Your task to perform on an android device: Do I have any events tomorrow? Image 0: 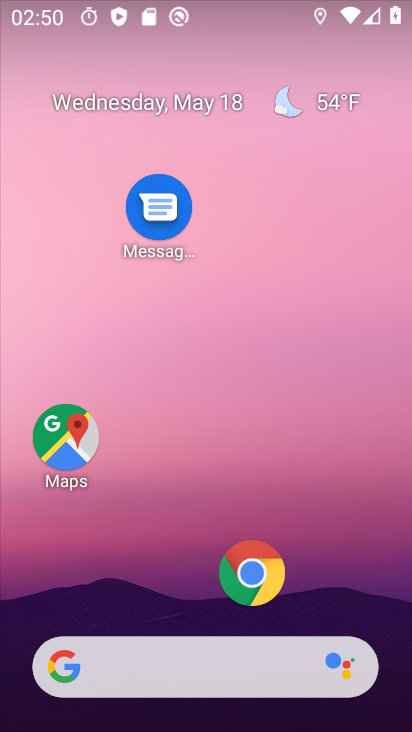
Step 0: drag from (185, 594) to (257, 222)
Your task to perform on an android device: Do I have any events tomorrow? Image 1: 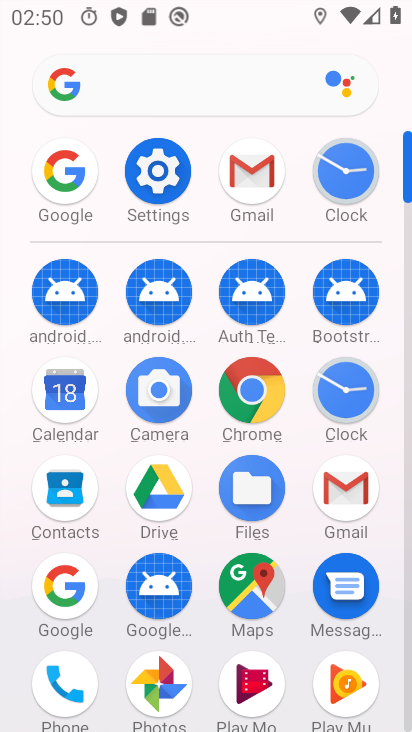
Step 1: click (75, 396)
Your task to perform on an android device: Do I have any events tomorrow? Image 2: 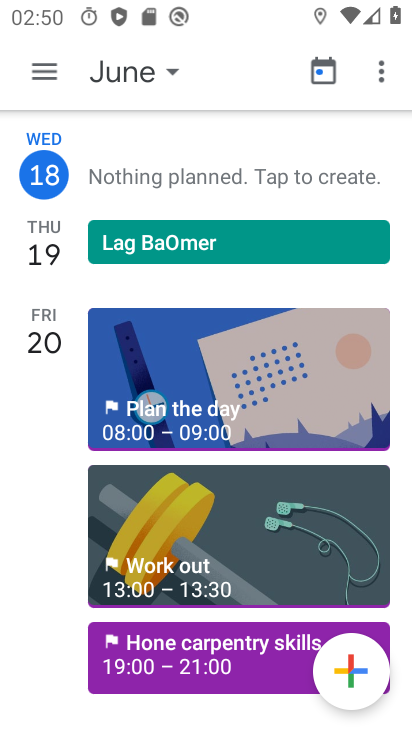
Step 2: click (167, 84)
Your task to perform on an android device: Do I have any events tomorrow? Image 3: 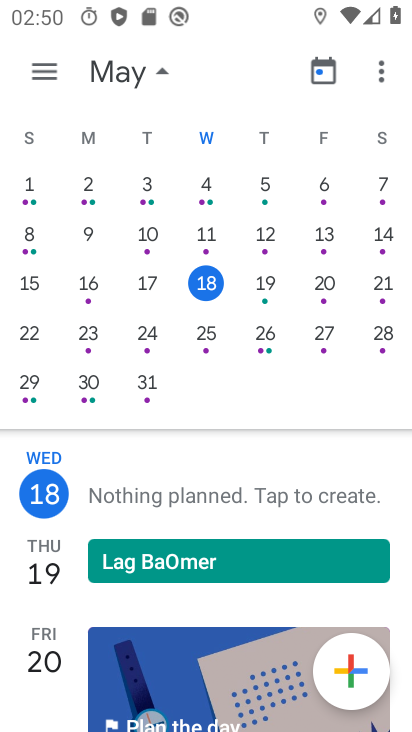
Step 3: drag from (77, 256) to (353, 274)
Your task to perform on an android device: Do I have any events tomorrow? Image 4: 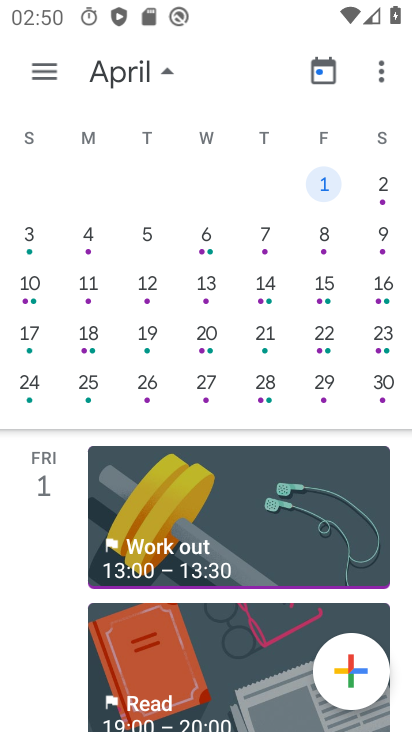
Step 4: drag from (259, 278) to (91, 273)
Your task to perform on an android device: Do I have any events tomorrow? Image 5: 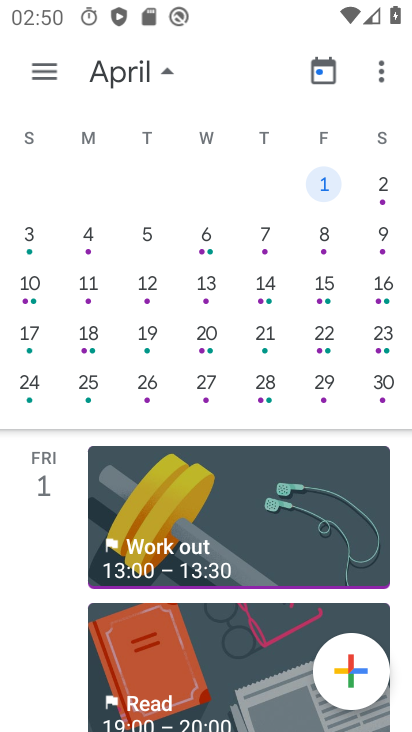
Step 5: drag from (347, 272) to (50, 280)
Your task to perform on an android device: Do I have any events tomorrow? Image 6: 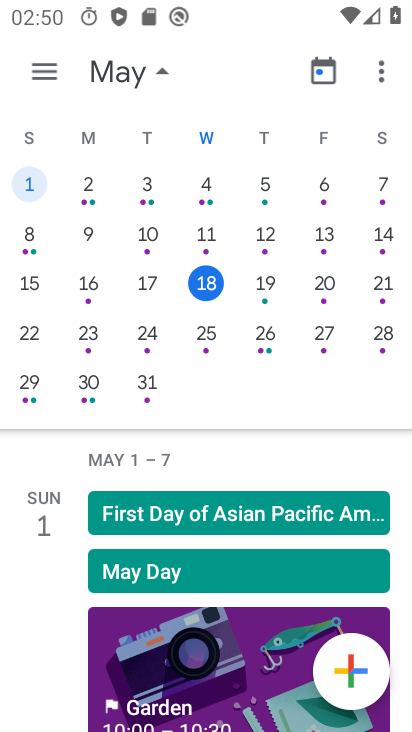
Step 6: click (195, 284)
Your task to perform on an android device: Do I have any events tomorrow? Image 7: 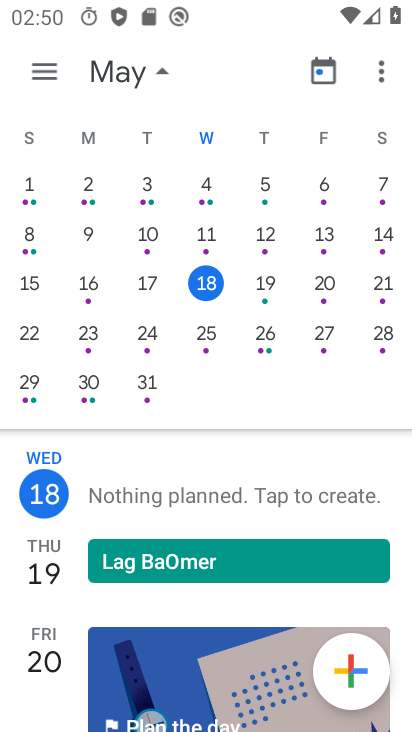
Step 7: task complete